Your task to perform on an android device: find photos in the google photos app Image 0: 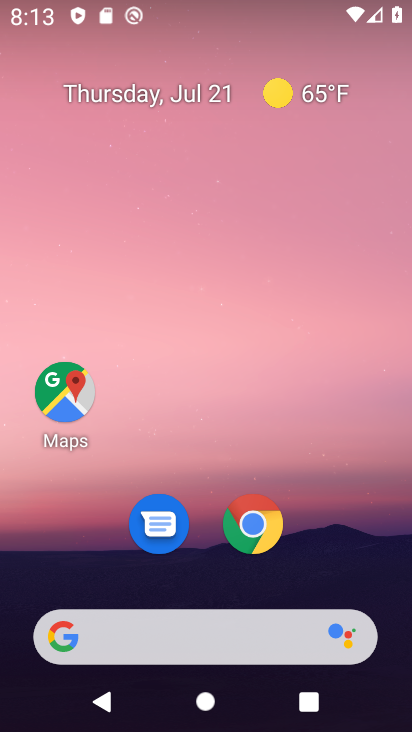
Step 0: drag from (187, 649) to (206, 4)
Your task to perform on an android device: find photos in the google photos app Image 1: 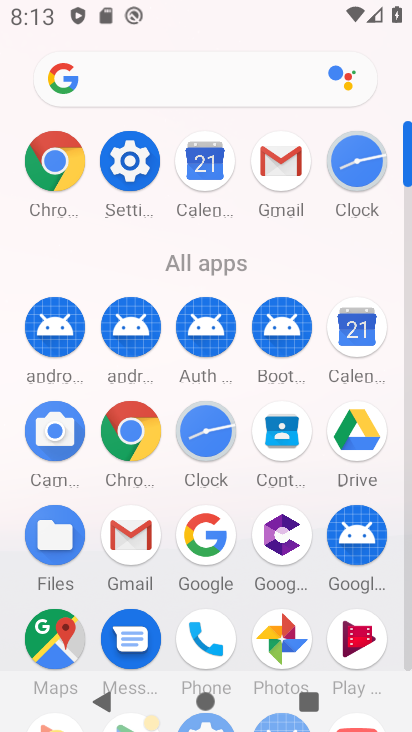
Step 1: click (286, 621)
Your task to perform on an android device: find photos in the google photos app Image 2: 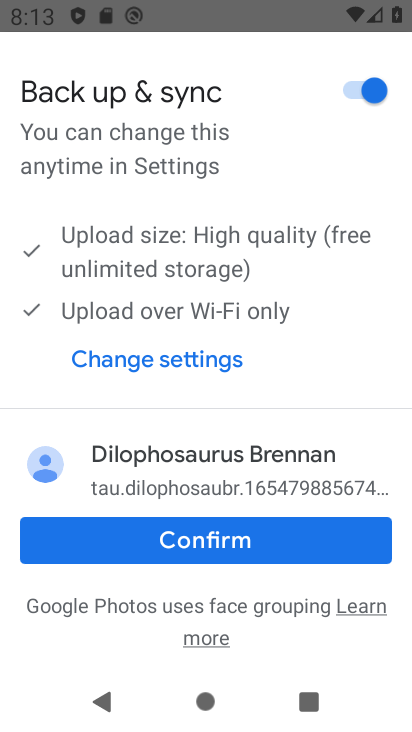
Step 2: click (235, 532)
Your task to perform on an android device: find photos in the google photos app Image 3: 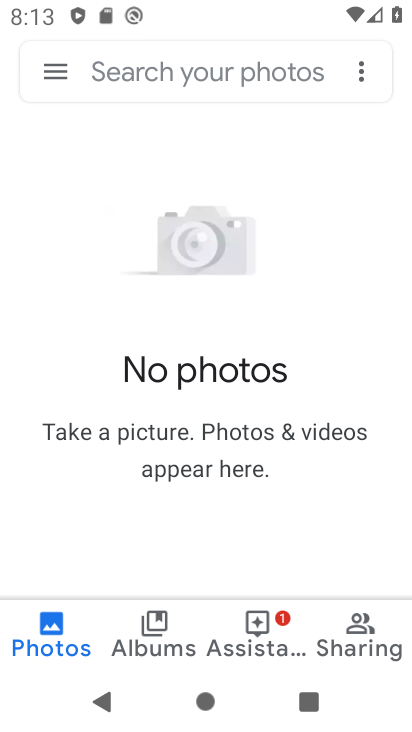
Step 3: task complete